Your task to perform on an android device: Open the calendar app, open the side menu, and click the "Day" option Image 0: 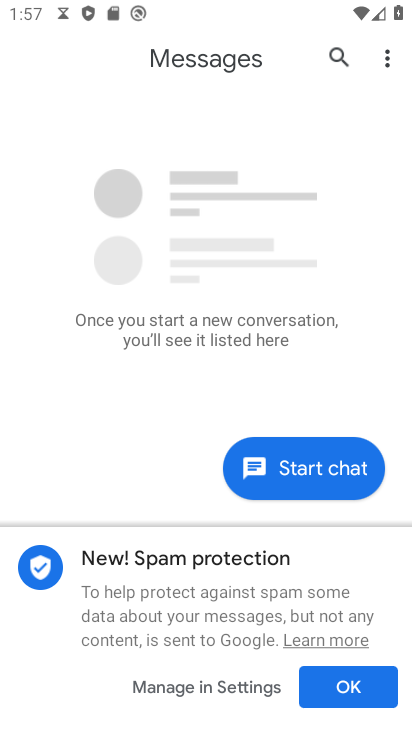
Step 0: press back button
Your task to perform on an android device: Open the calendar app, open the side menu, and click the "Day" option Image 1: 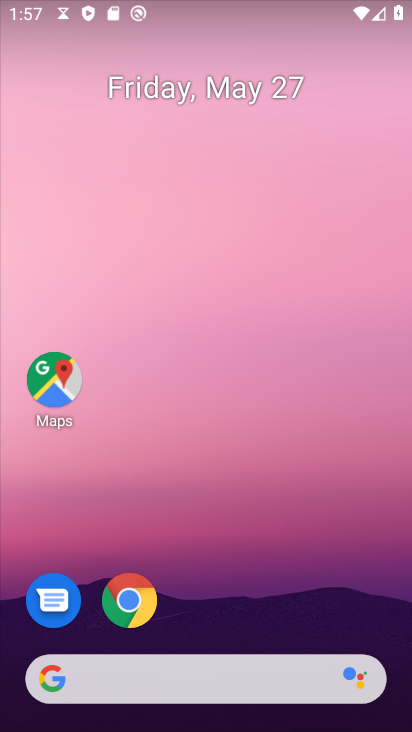
Step 1: drag from (260, 565) to (155, 39)
Your task to perform on an android device: Open the calendar app, open the side menu, and click the "Day" option Image 2: 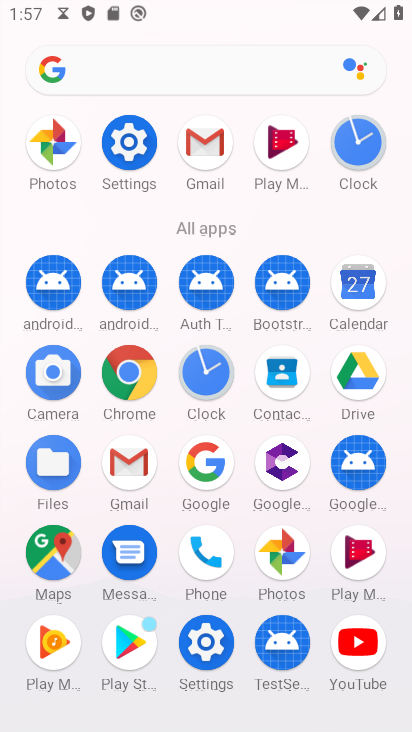
Step 2: drag from (16, 533) to (12, 192)
Your task to perform on an android device: Open the calendar app, open the side menu, and click the "Day" option Image 3: 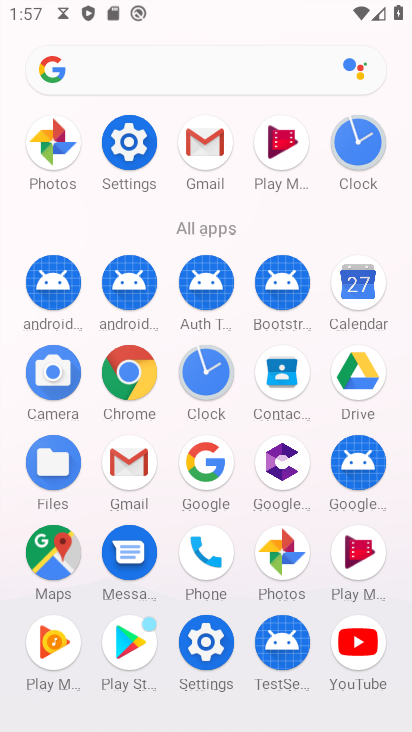
Step 3: click (353, 281)
Your task to perform on an android device: Open the calendar app, open the side menu, and click the "Day" option Image 4: 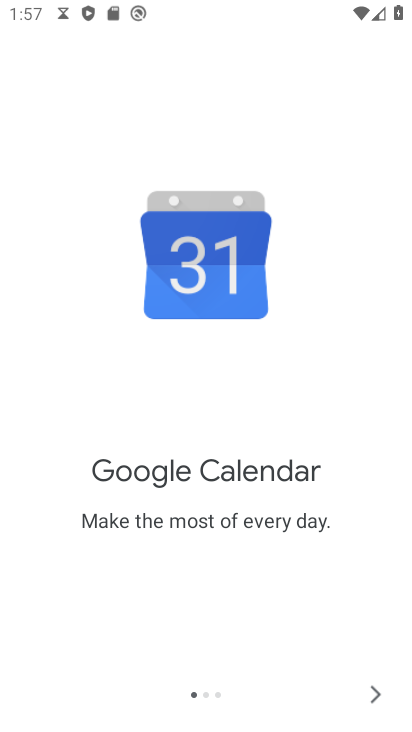
Step 4: click (384, 688)
Your task to perform on an android device: Open the calendar app, open the side menu, and click the "Day" option Image 5: 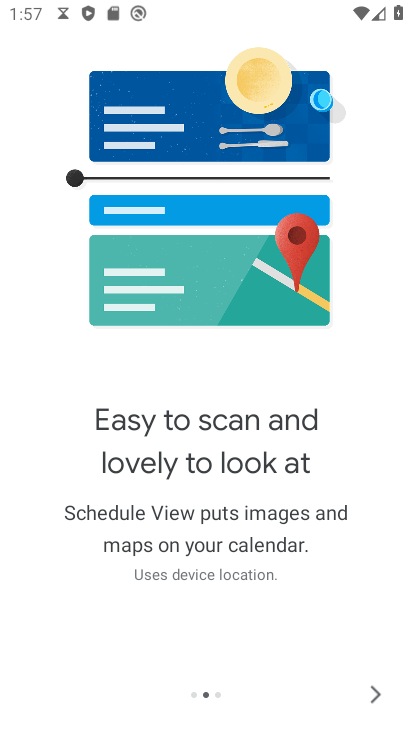
Step 5: click (378, 688)
Your task to perform on an android device: Open the calendar app, open the side menu, and click the "Day" option Image 6: 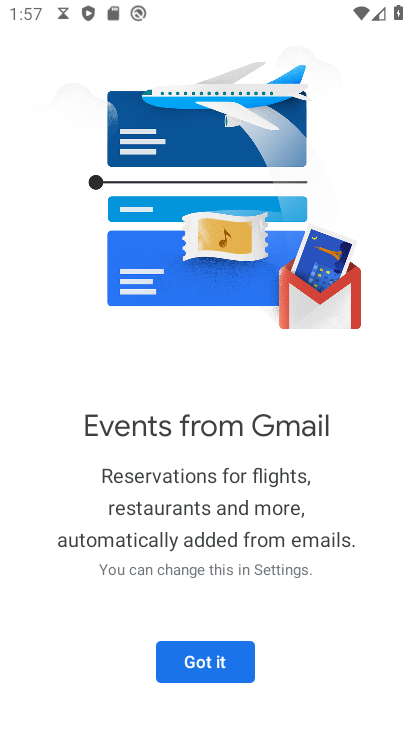
Step 6: click (225, 670)
Your task to perform on an android device: Open the calendar app, open the side menu, and click the "Day" option Image 7: 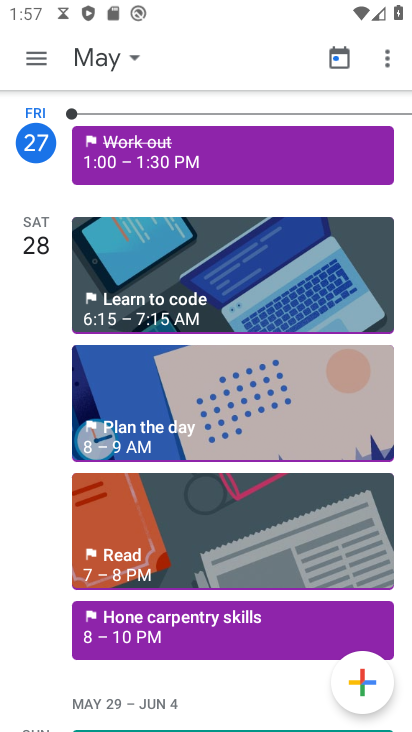
Step 7: click (46, 62)
Your task to perform on an android device: Open the calendar app, open the side menu, and click the "Day" option Image 8: 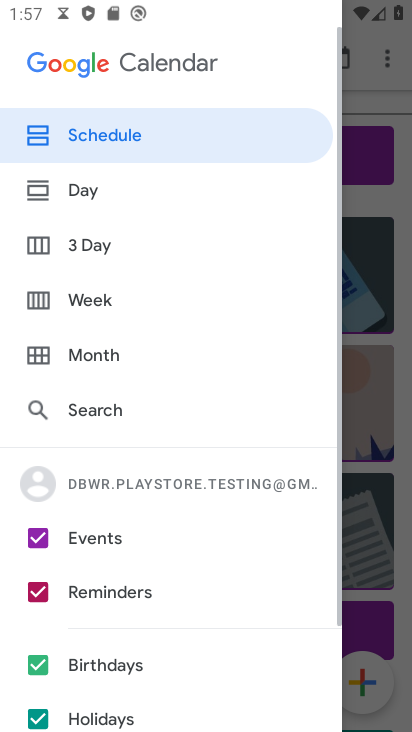
Step 8: click (94, 185)
Your task to perform on an android device: Open the calendar app, open the side menu, and click the "Day" option Image 9: 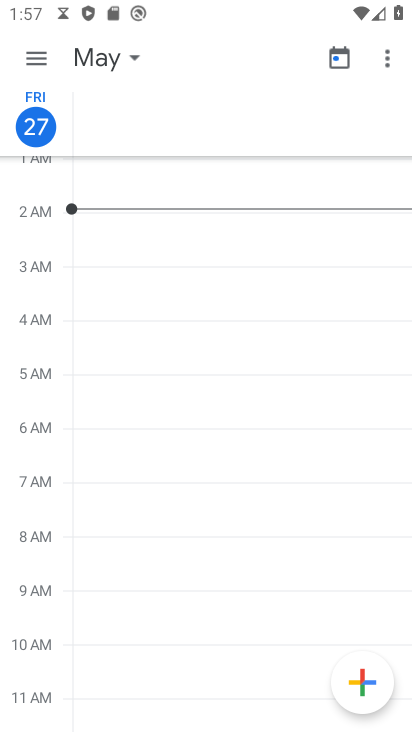
Step 9: task complete